Your task to perform on an android device: Open Google Chrome and open the bookmarks view Image 0: 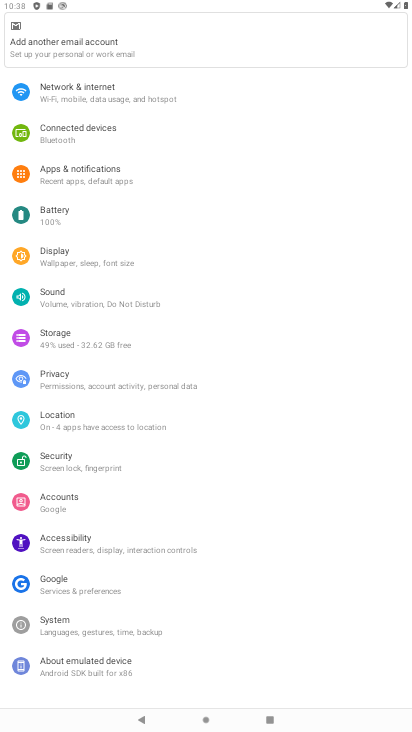
Step 0: press home button
Your task to perform on an android device: Open Google Chrome and open the bookmarks view Image 1: 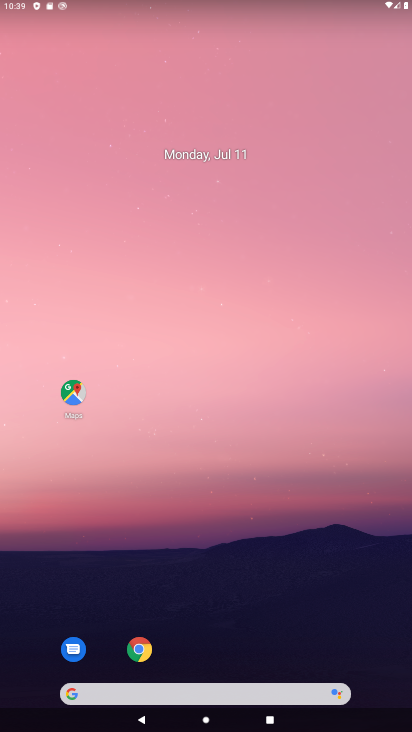
Step 1: click (141, 649)
Your task to perform on an android device: Open Google Chrome and open the bookmarks view Image 2: 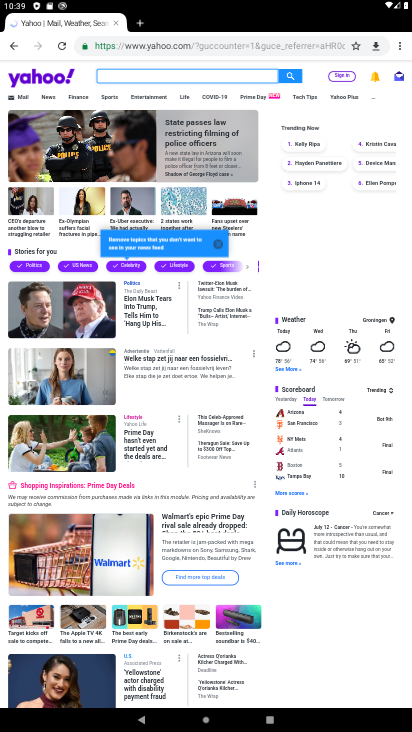
Step 2: click (400, 47)
Your task to perform on an android device: Open Google Chrome and open the bookmarks view Image 3: 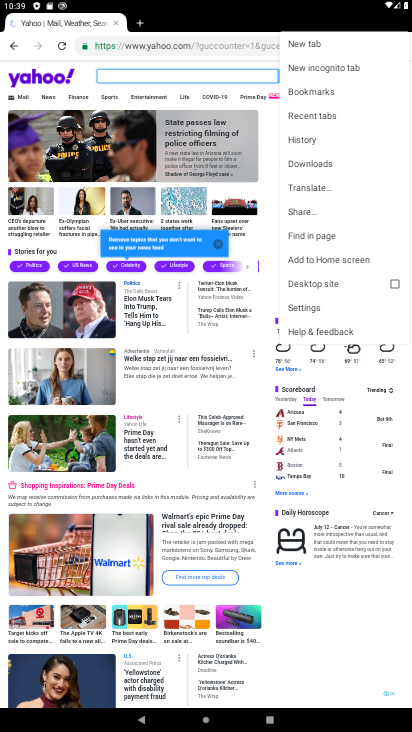
Step 3: click (326, 92)
Your task to perform on an android device: Open Google Chrome and open the bookmarks view Image 4: 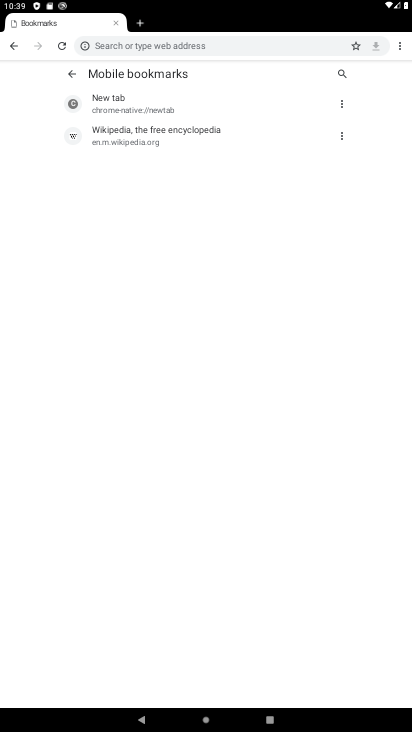
Step 4: task complete